Your task to perform on an android device: toggle javascript in the chrome app Image 0: 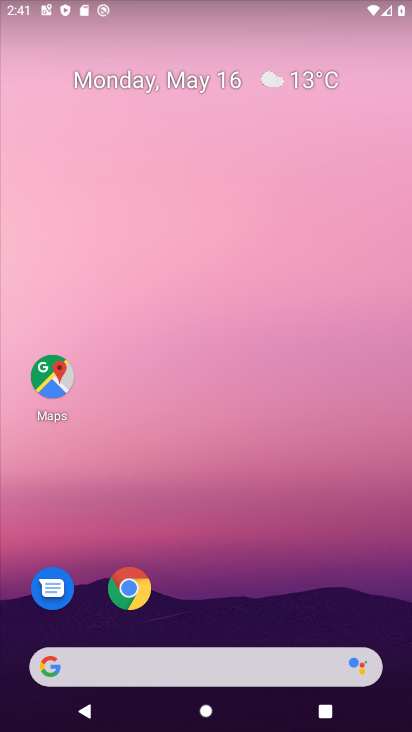
Step 0: drag from (216, 699) to (295, 19)
Your task to perform on an android device: toggle javascript in the chrome app Image 1: 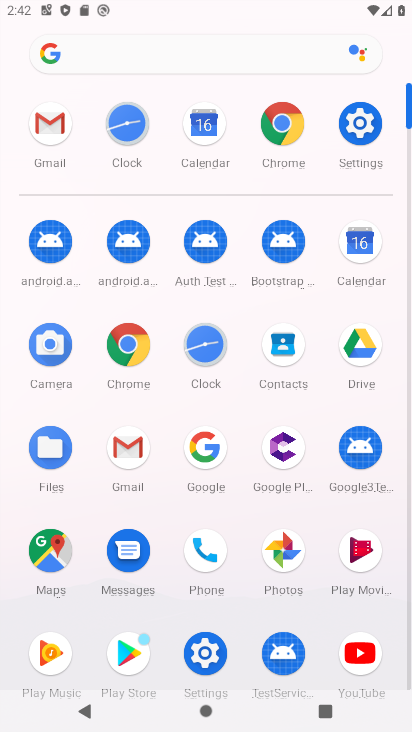
Step 1: click (117, 360)
Your task to perform on an android device: toggle javascript in the chrome app Image 2: 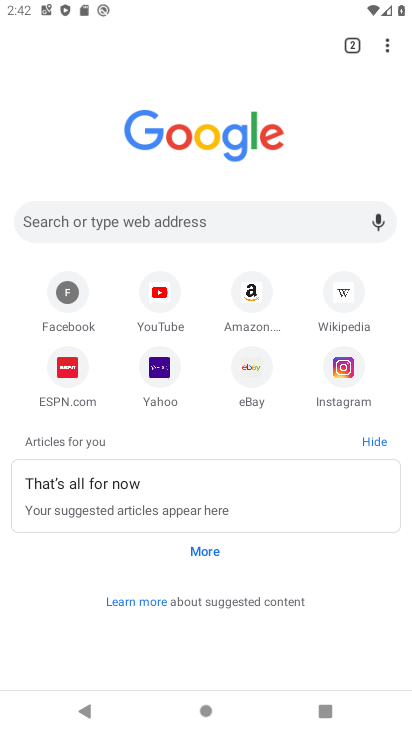
Step 2: click (390, 48)
Your task to perform on an android device: toggle javascript in the chrome app Image 3: 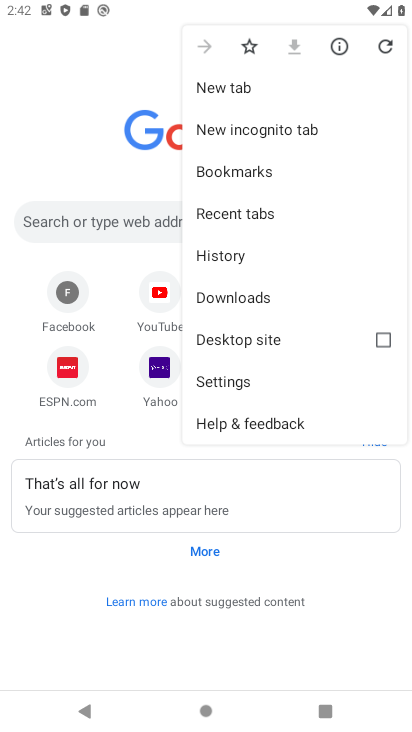
Step 3: click (244, 370)
Your task to perform on an android device: toggle javascript in the chrome app Image 4: 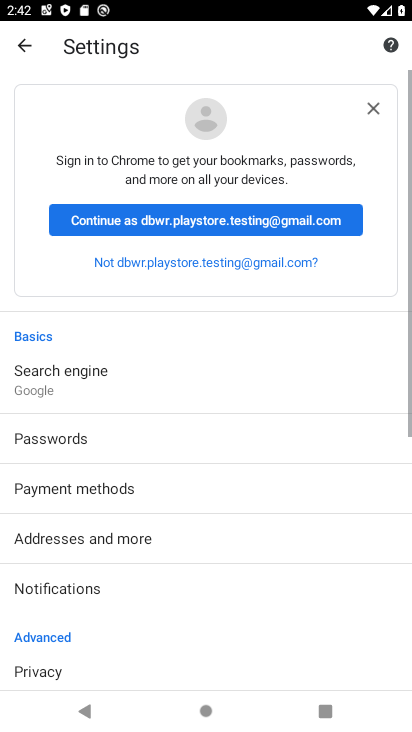
Step 4: drag from (264, 508) to (276, 59)
Your task to perform on an android device: toggle javascript in the chrome app Image 5: 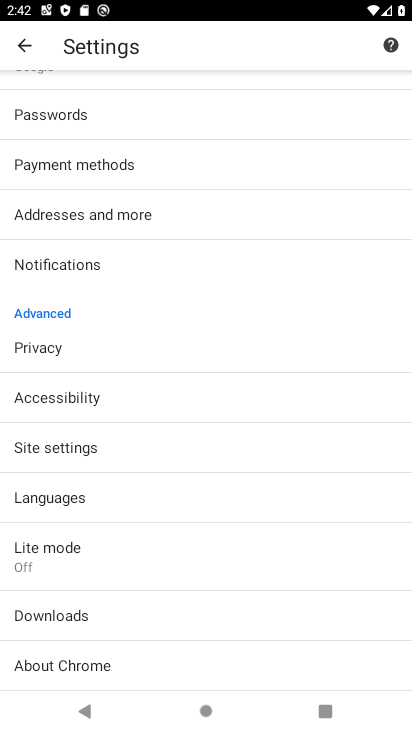
Step 5: click (114, 458)
Your task to perform on an android device: toggle javascript in the chrome app Image 6: 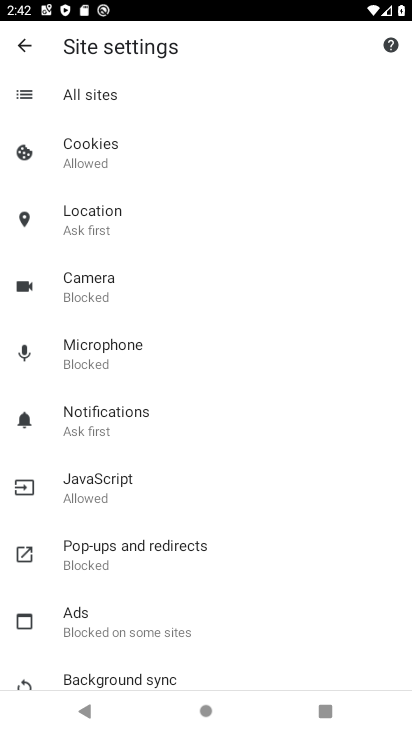
Step 6: click (118, 489)
Your task to perform on an android device: toggle javascript in the chrome app Image 7: 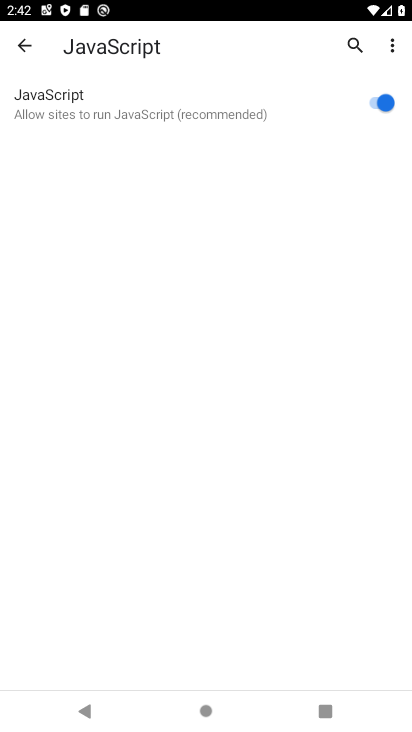
Step 7: click (370, 97)
Your task to perform on an android device: toggle javascript in the chrome app Image 8: 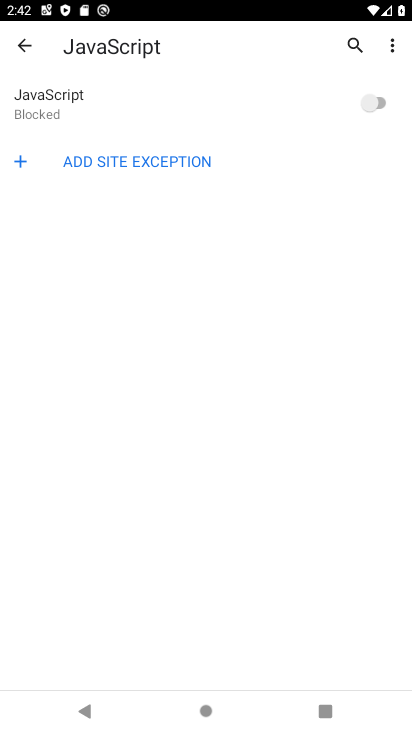
Step 8: task complete